Your task to perform on an android device: Search for usb-b on bestbuy, select the first entry, add it to the cart, then select checkout. Image 0: 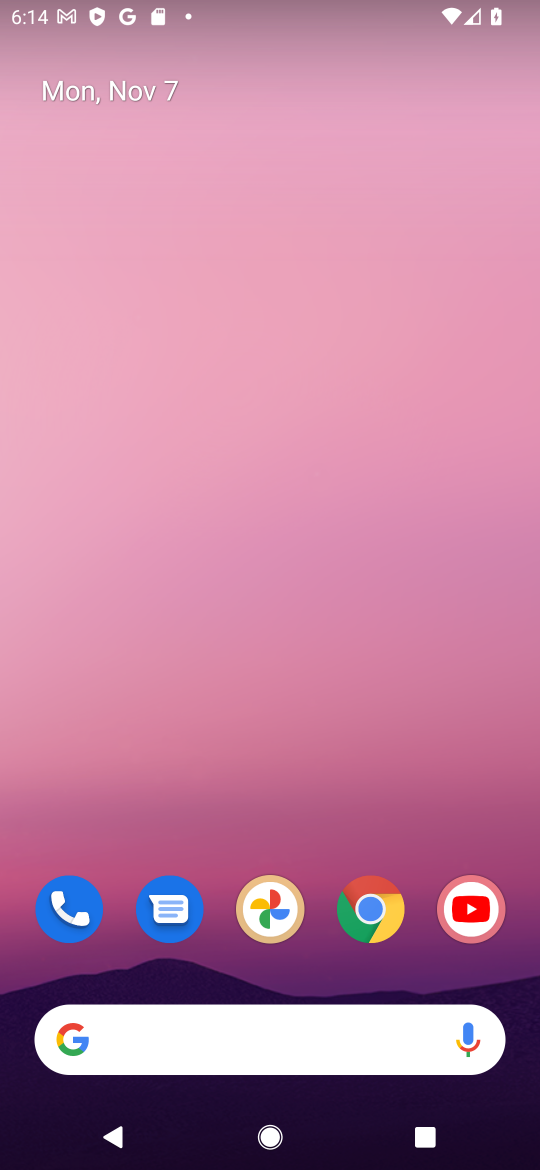
Step 0: click (376, 930)
Your task to perform on an android device: Search for usb-b on bestbuy, select the first entry, add it to the cart, then select checkout. Image 1: 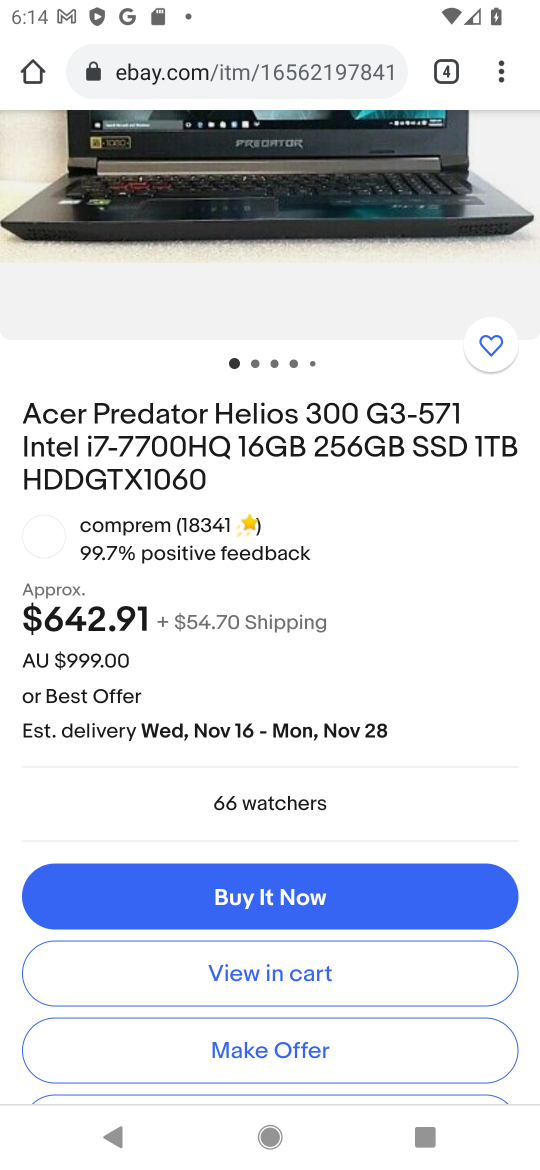
Step 1: click (450, 75)
Your task to perform on an android device: Search for usb-b on bestbuy, select the first entry, add it to the cart, then select checkout. Image 2: 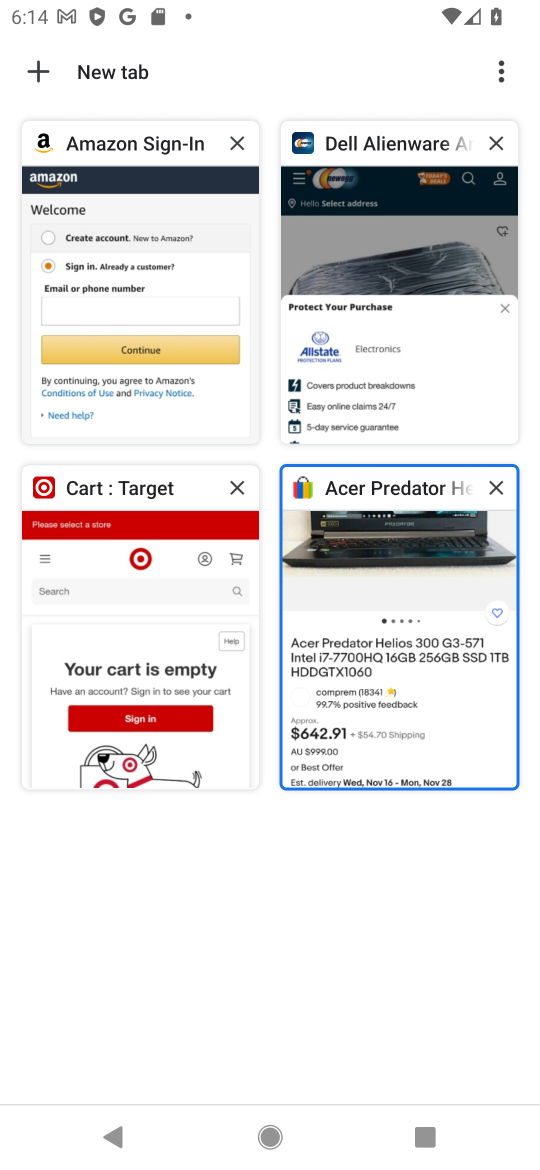
Step 2: click (39, 76)
Your task to perform on an android device: Search for usb-b on bestbuy, select the first entry, add it to the cart, then select checkout. Image 3: 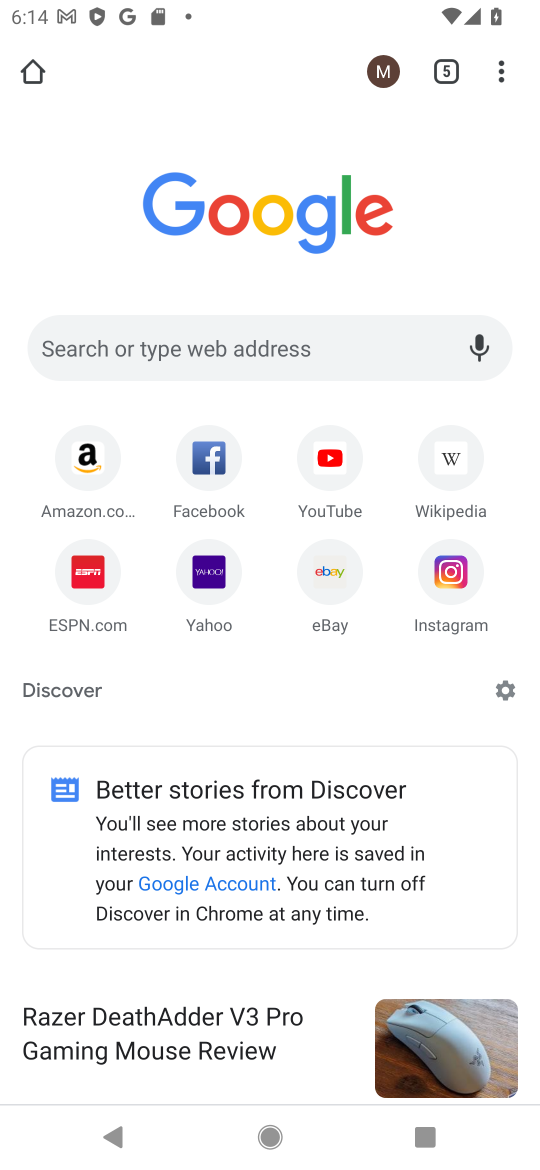
Step 3: click (162, 342)
Your task to perform on an android device: Search for usb-b on bestbuy, select the first entry, add it to the cart, then select checkout. Image 4: 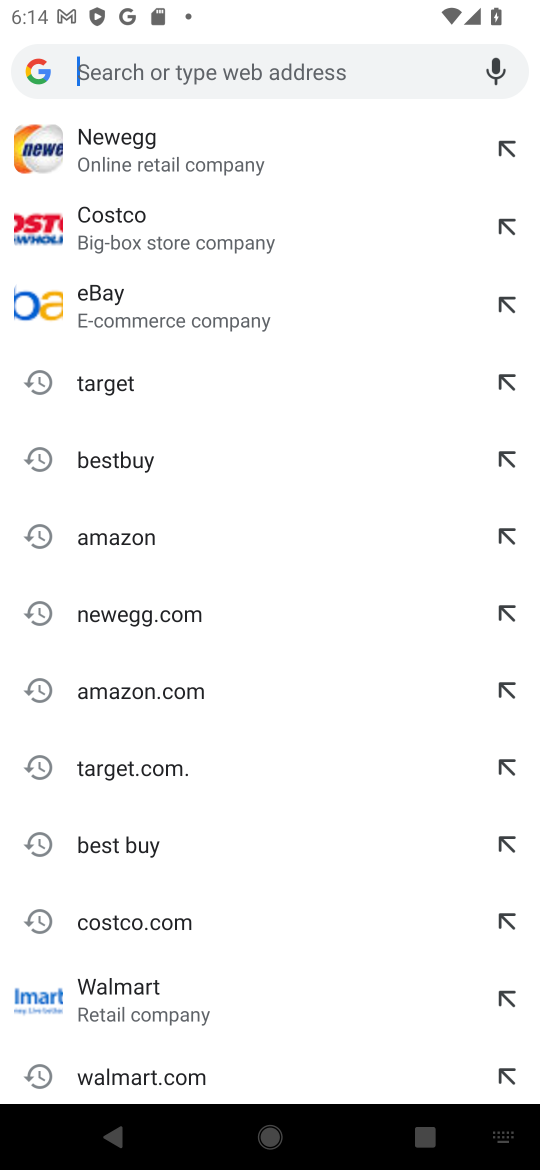
Step 4: type "acer predator"
Your task to perform on an android device: Search for usb-b on bestbuy, select the first entry, add it to the cart, then select checkout. Image 5: 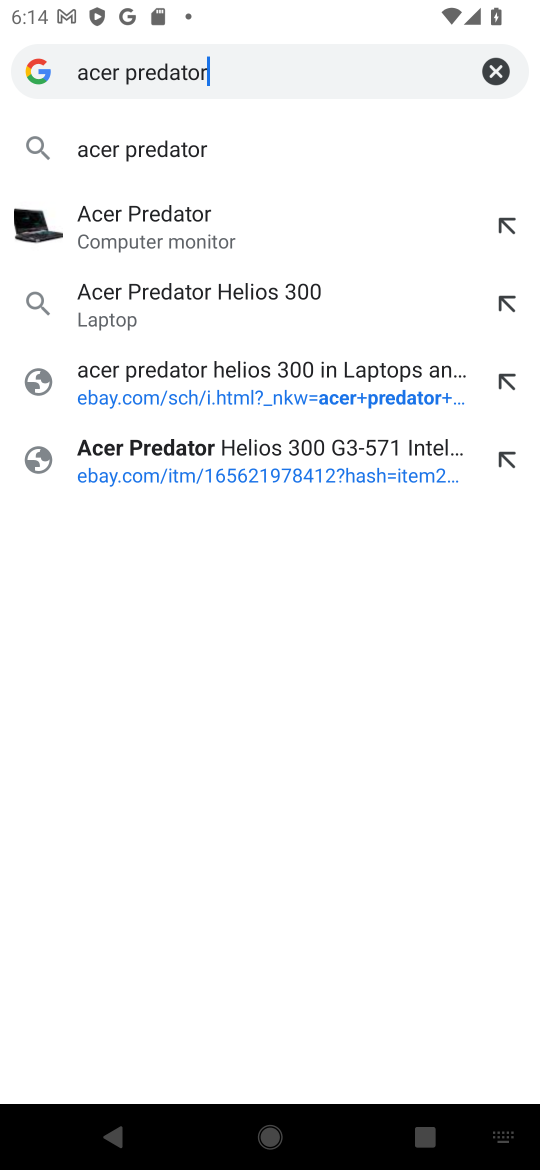
Step 5: type " on bestbuy"
Your task to perform on an android device: Search for usb-b on bestbuy, select the first entry, add it to the cart, then select checkout. Image 6: 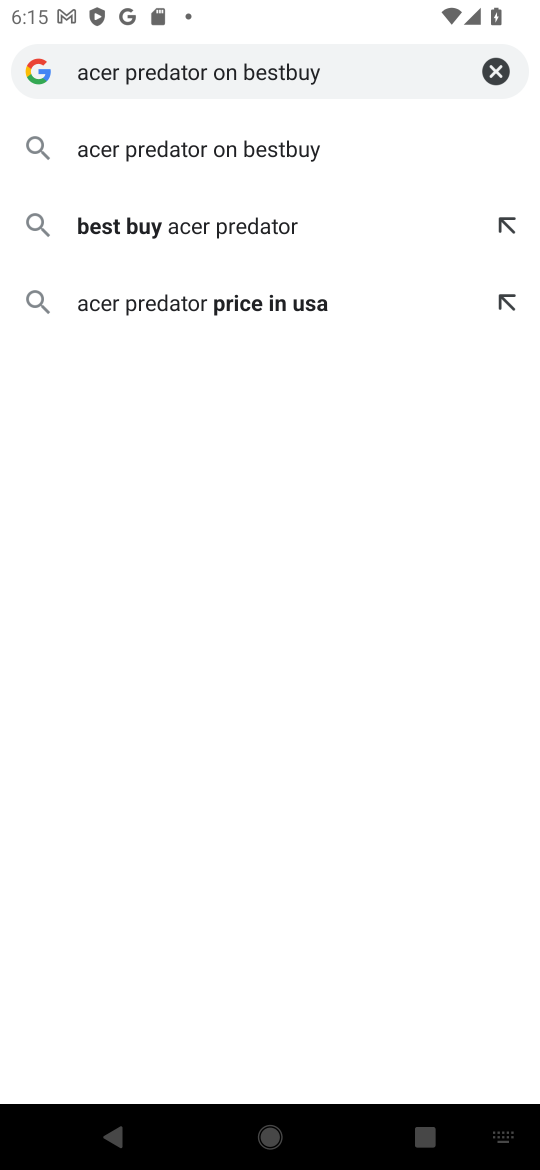
Step 6: click (284, 146)
Your task to perform on an android device: Search for usb-b on bestbuy, select the first entry, add it to the cart, then select checkout. Image 7: 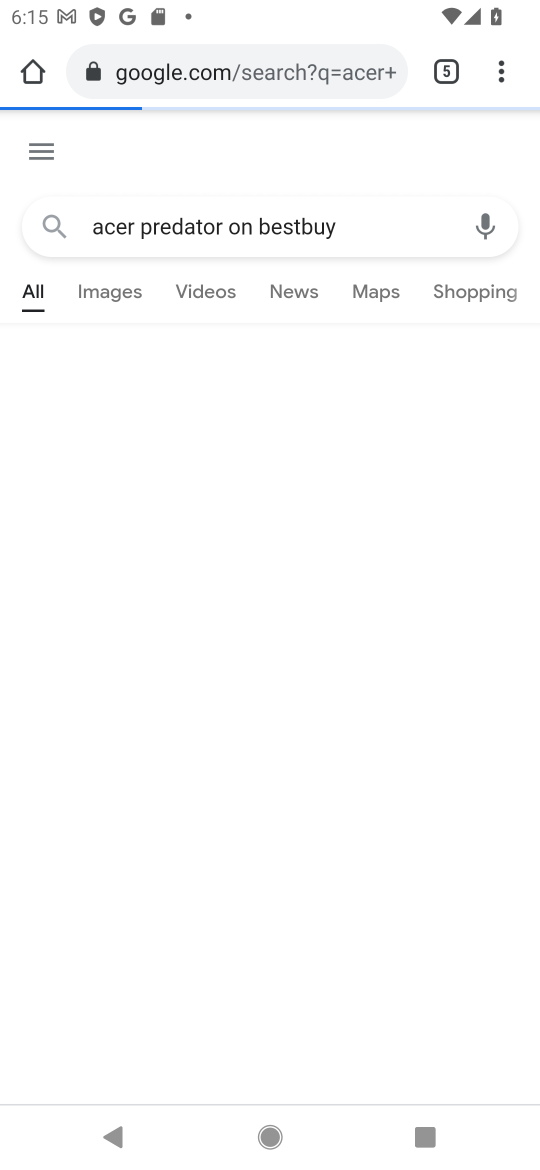
Step 7: click (234, 140)
Your task to perform on an android device: Search for usb-b on bestbuy, select the first entry, add it to the cart, then select checkout. Image 8: 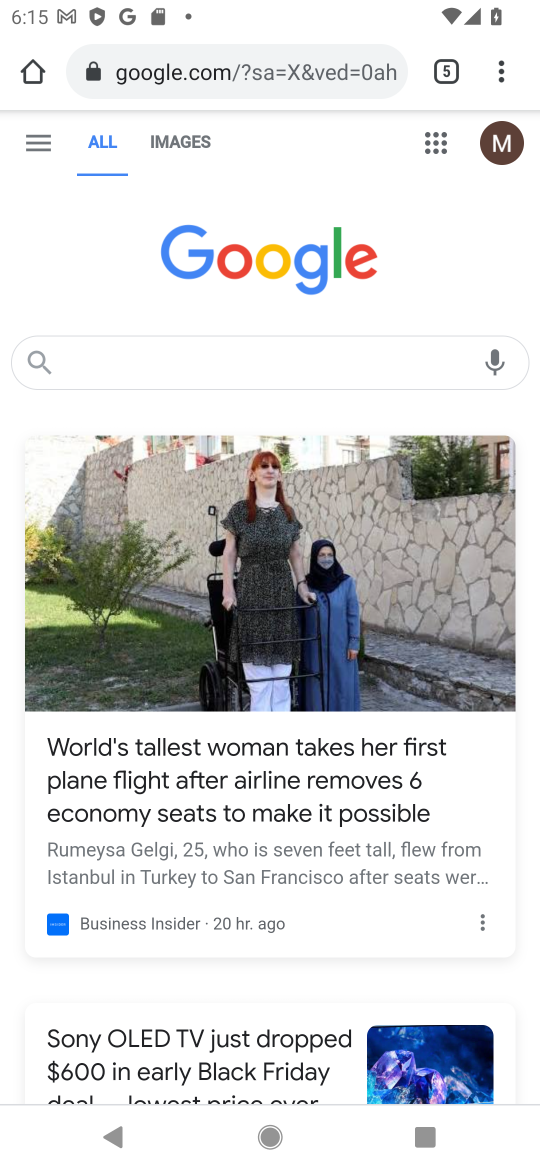
Step 8: click (454, 71)
Your task to perform on an android device: Search for usb-b on bestbuy, select the first entry, add it to the cart, then select checkout. Image 9: 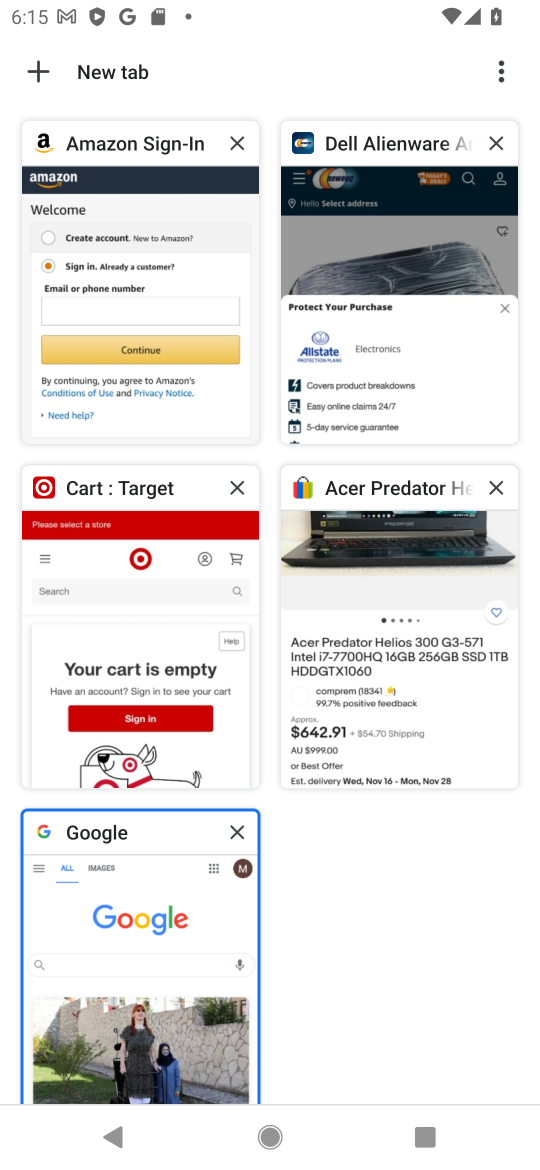
Step 9: click (112, 920)
Your task to perform on an android device: Search for usb-b on bestbuy, select the first entry, add it to the cart, then select checkout. Image 10: 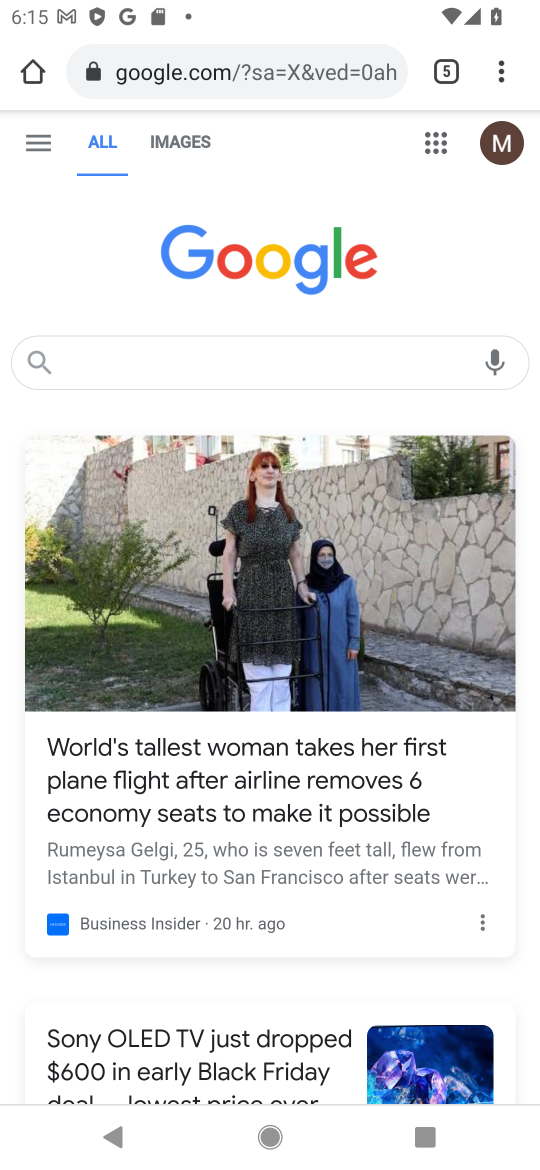
Step 10: click (210, 358)
Your task to perform on an android device: Search for usb-b on bestbuy, select the first entry, add it to the cart, then select checkout. Image 11: 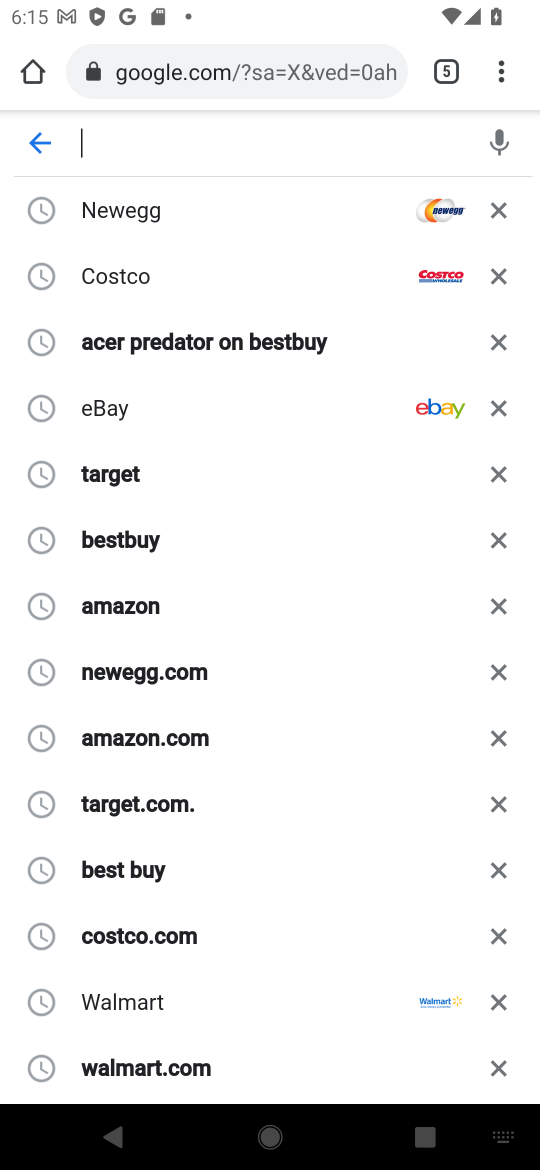
Step 11: click (132, 537)
Your task to perform on an android device: Search for usb-b on bestbuy, select the first entry, add it to the cart, then select checkout. Image 12: 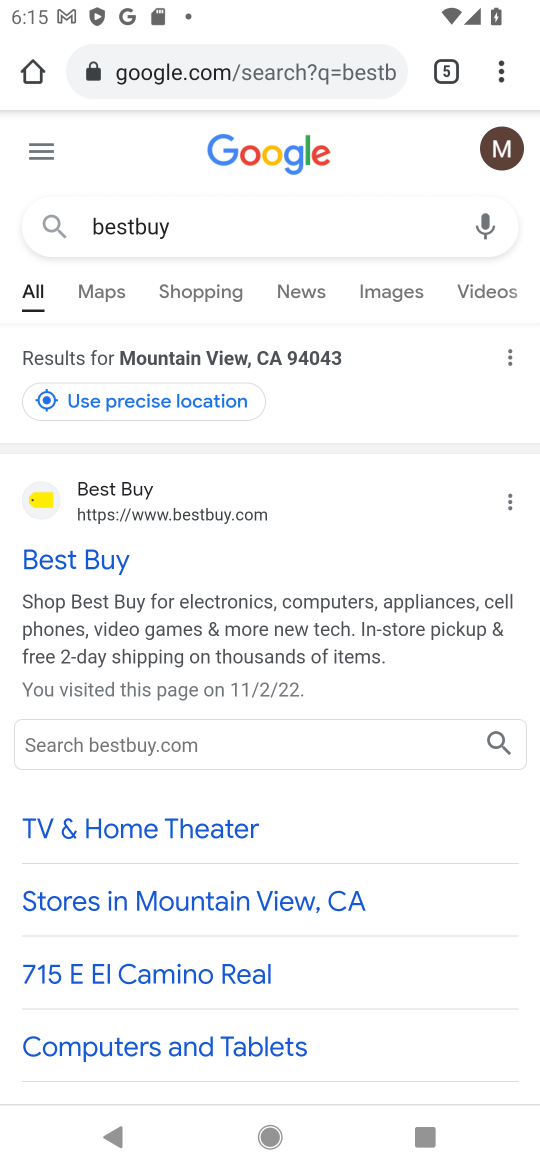
Step 12: click (101, 556)
Your task to perform on an android device: Search for usb-b on bestbuy, select the first entry, add it to the cart, then select checkout. Image 13: 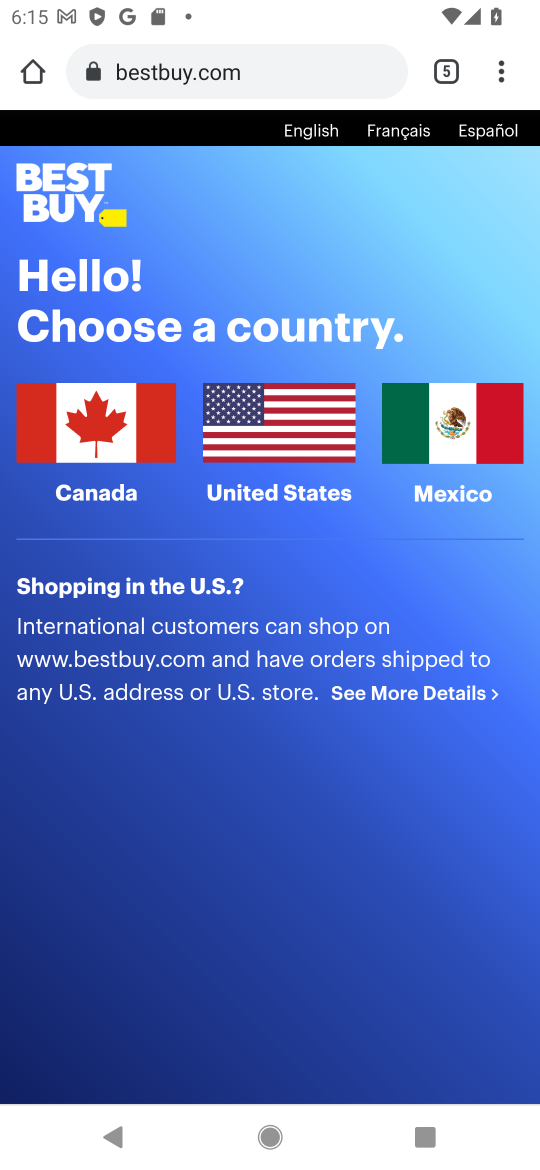
Step 13: click (276, 424)
Your task to perform on an android device: Search for usb-b on bestbuy, select the first entry, add it to the cart, then select checkout. Image 14: 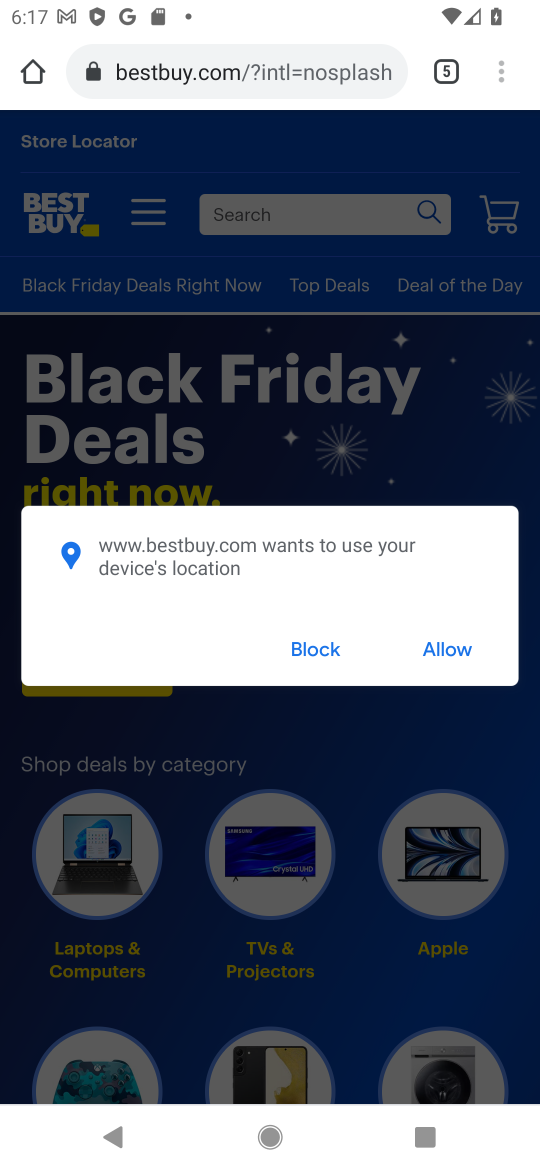
Step 14: click (313, 640)
Your task to perform on an android device: Search for usb-b on bestbuy, select the first entry, add it to the cart, then select checkout. Image 15: 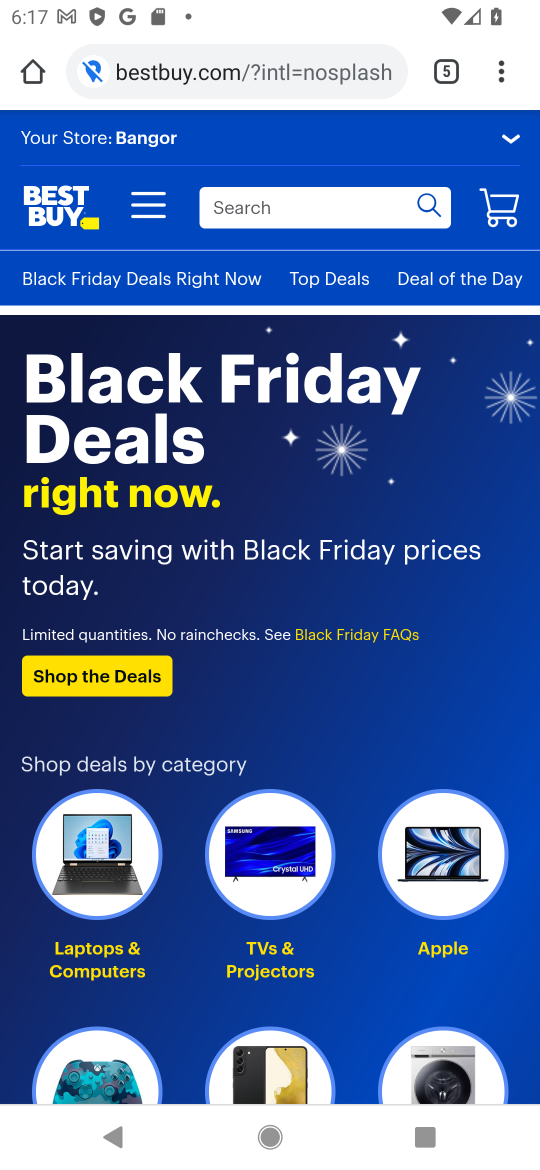
Step 15: click (233, 193)
Your task to perform on an android device: Search for usb-b on bestbuy, select the first entry, add it to the cart, then select checkout. Image 16: 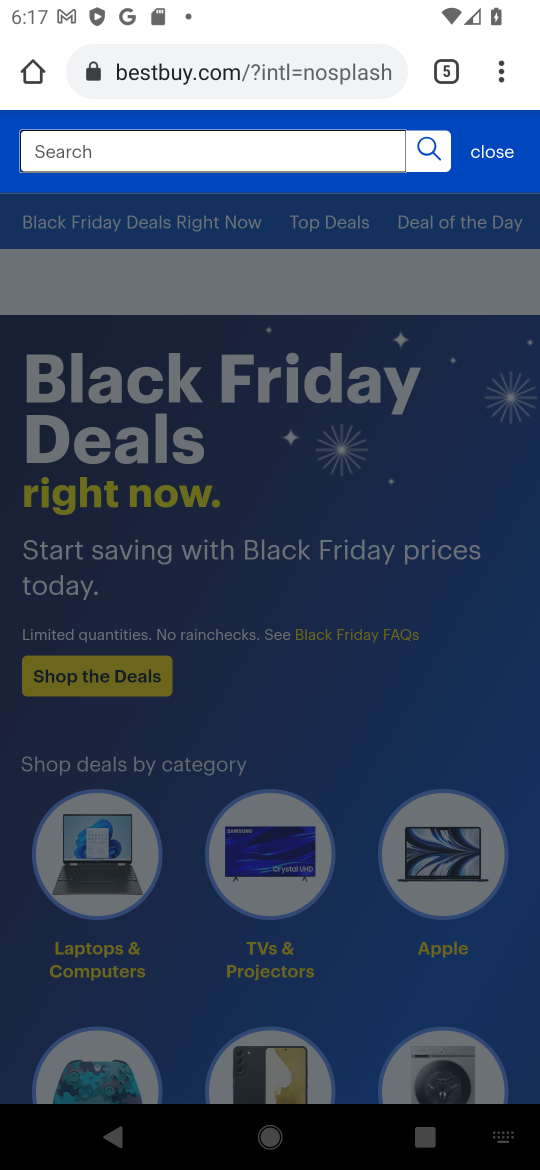
Step 16: type " usb-b"
Your task to perform on an android device: Search for usb-b on bestbuy, select the first entry, add it to the cart, then select checkout. Image 17: 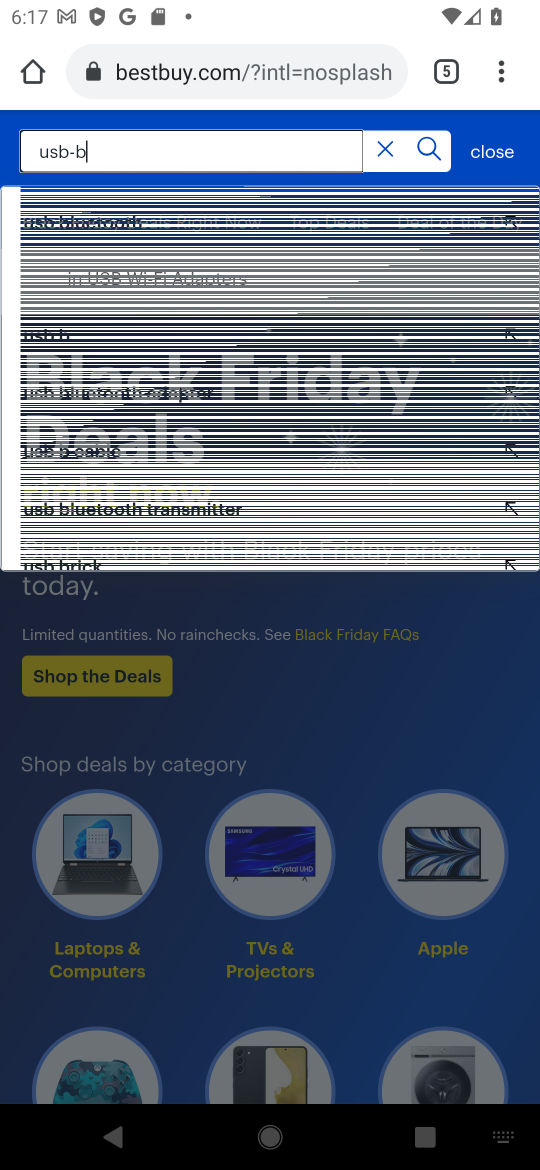
Step 17: click (51, 329)
Your task to perform on an android device: Search for usb-b on bestbuy, select the first entry, add it to the cart, then select checkout. Image 18: 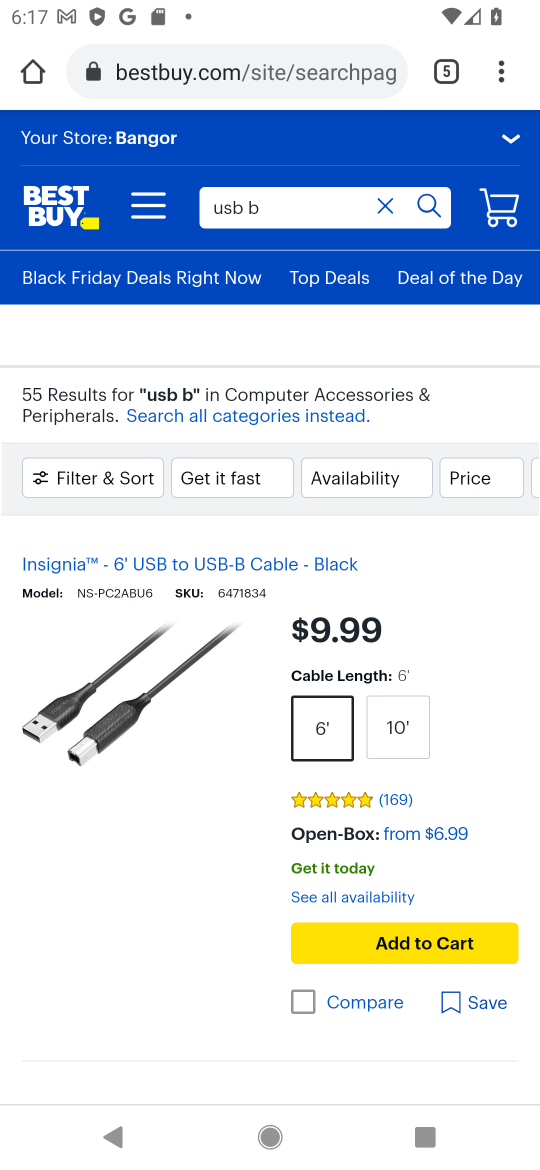
Step 18: click (387, 939)
Your task to perform on an android device: Search for usb-b on bestbuy, select the first entry, add it to the cart, then select checkout. Image 19: 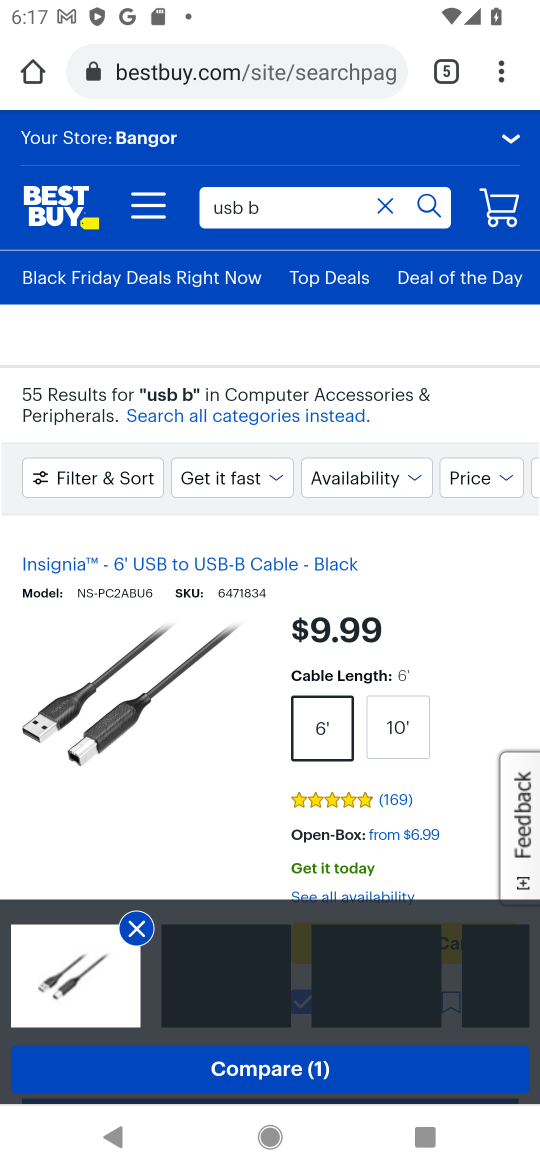
Step 19: click (135, 928)
Your task to perform on an android device: Search for usb-b on bestbuy, select the first entry, add it to the cart, then select checkout. Image 20: 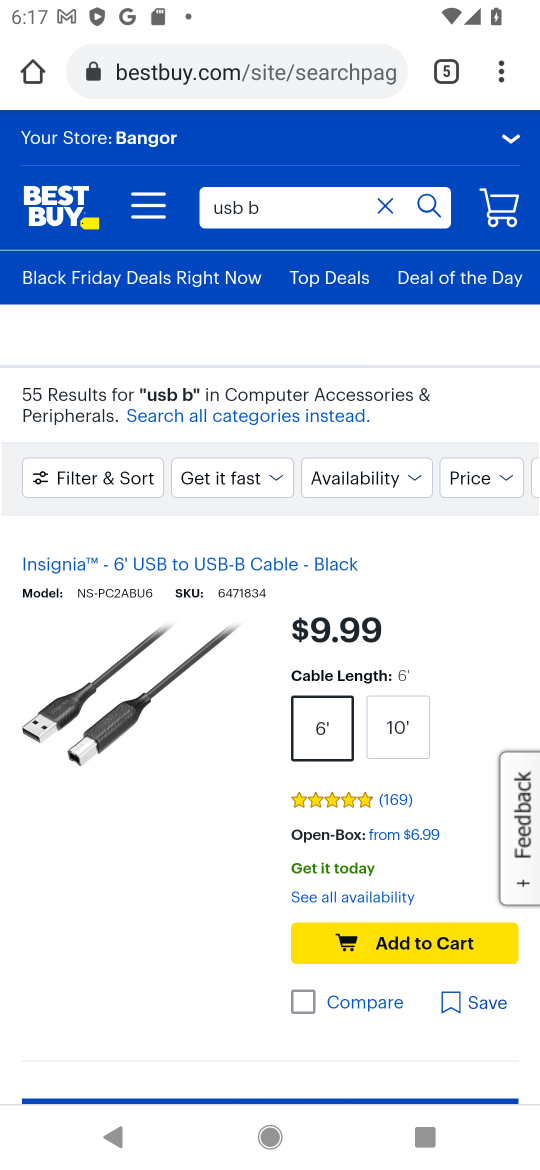
Step 20: click (398, 942)
Your task to perform on an android device: Search for usb-b on bestbuy, select the first entry, add it to the cart, then select checkout. Image 21: 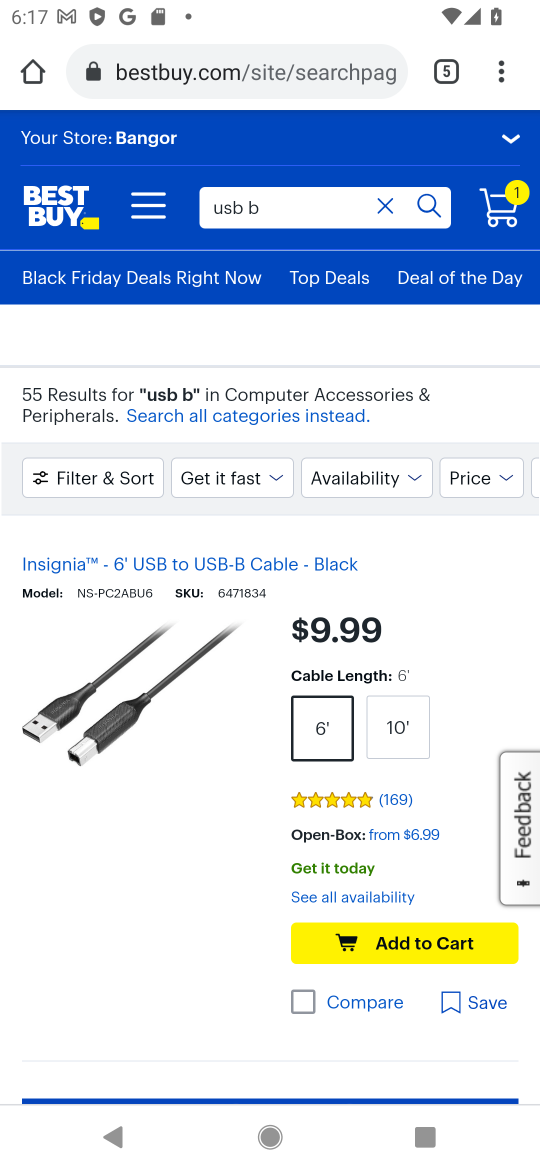
Step 21: click (496, 196)
Your task to perform on an android device: Search for usb-b on bestbuy, select the first entry, add it to the cart, then select checkout. Image 22: 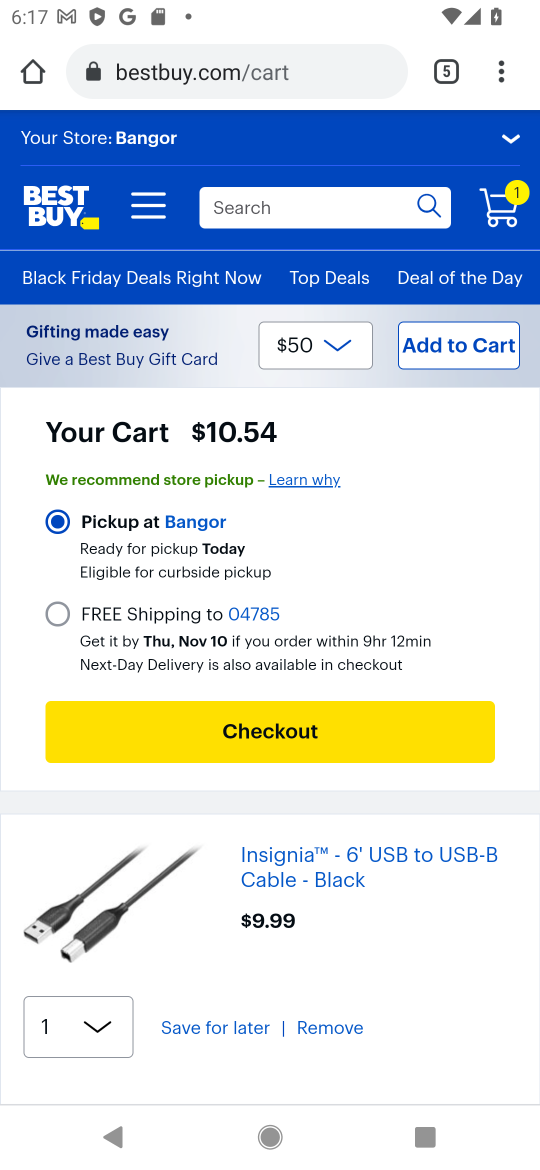
Step 22: click (250, 723)
Your task to perform on an android device: Search for usb-b on bestbuy, select the first entry, add it to the cart, then select checkout. Image 23: 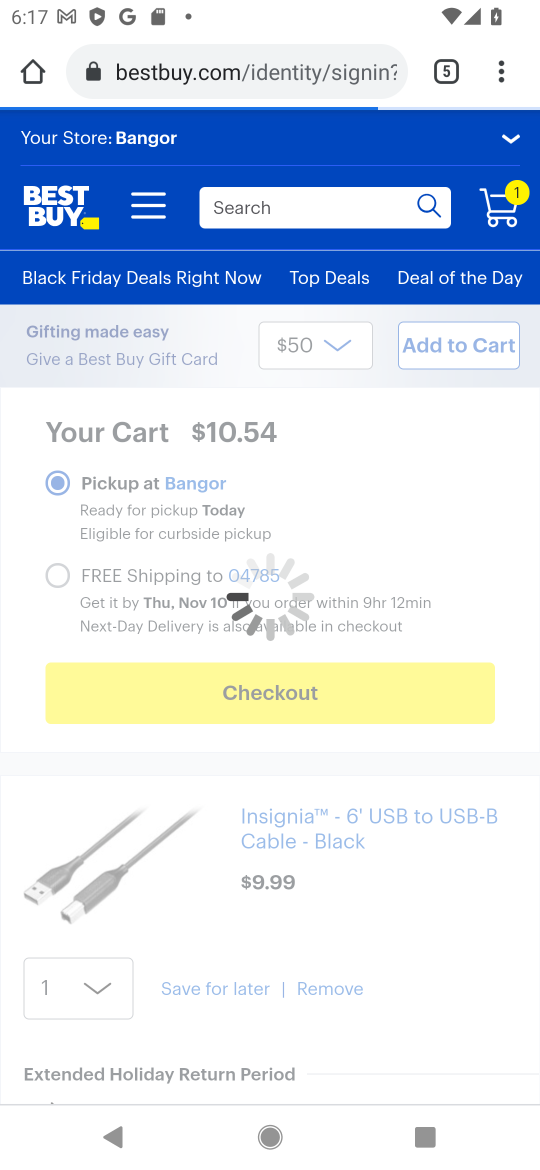
Step 23: task complete